Your task to perform on an android device: Open Google Maps Image 0: 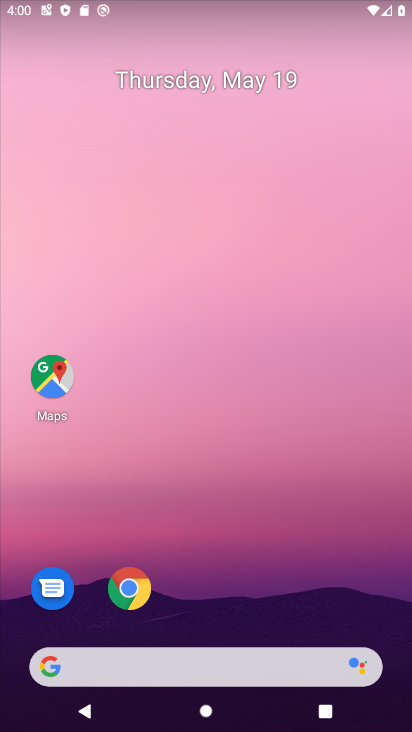
Step 0: click (59, 388)
Your task to perform on an android device: Open Google Maps Image 1: 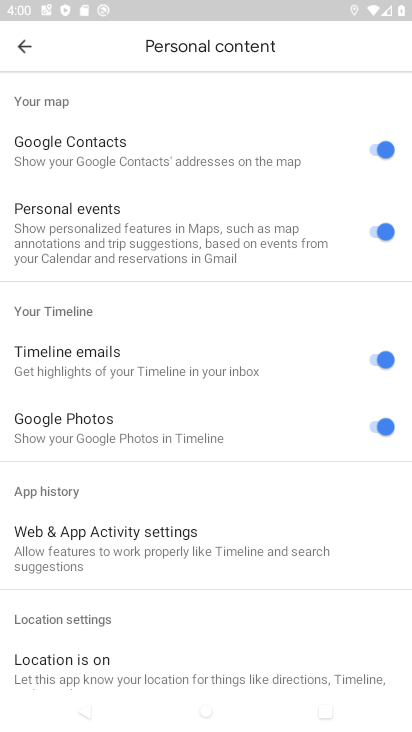
Step 1: task complete